Your task to perform on an android device: star an email in the gmail app Image 0: 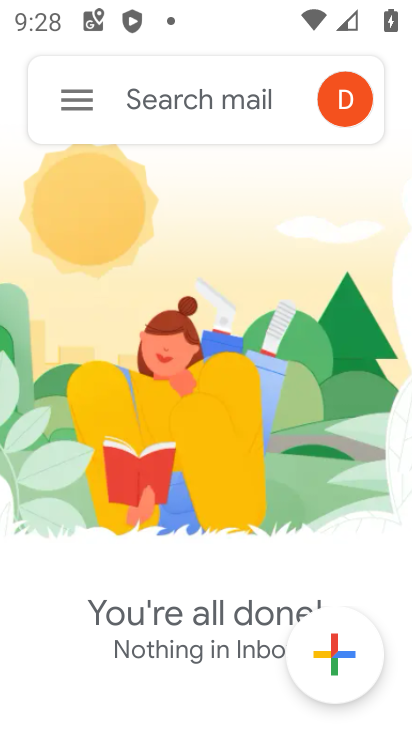
Step 0: press home button
Your task to perform on an android device: star an email in the gmail app Image 1: 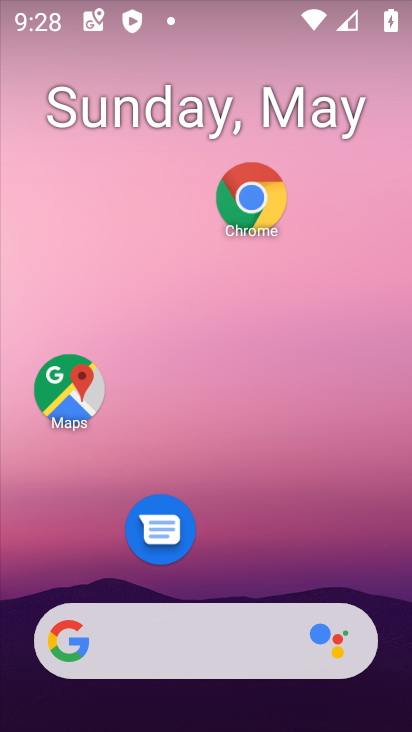
Step 1: drag from (235, 476) to (249, 51)
Your task to perform on an android device: star an email in the gmail app Image 2: 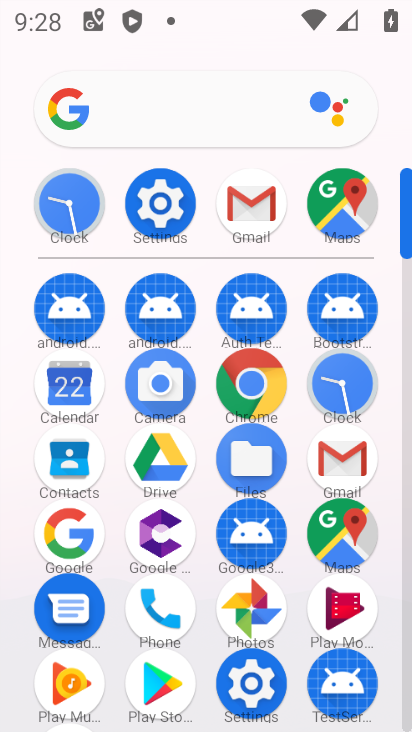
Step 2: click (252, 215)
Your task to perform on an android device: star an email in the gmail app Image 3: 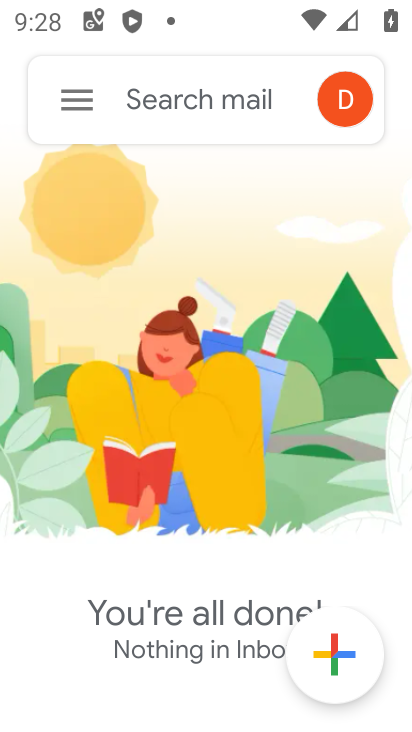
Step 3: click (88, 104)
Your task to perform on an android device: star an email in the gmail app Image 4: 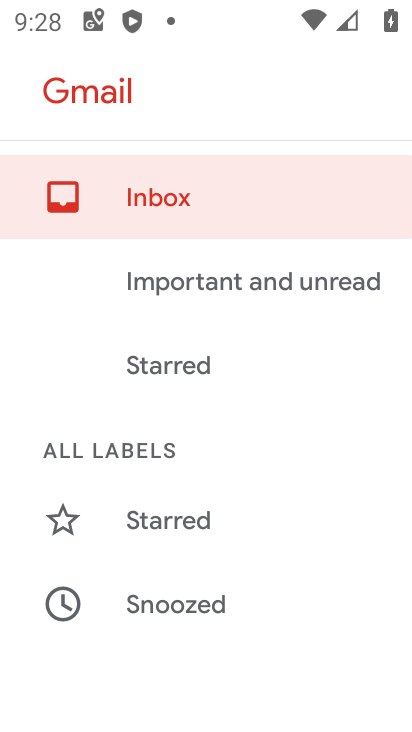
Step 4: drag from (245, 529) to (268, 242)
Your task to perform on an android device: star an email in the gmail app Image 5: 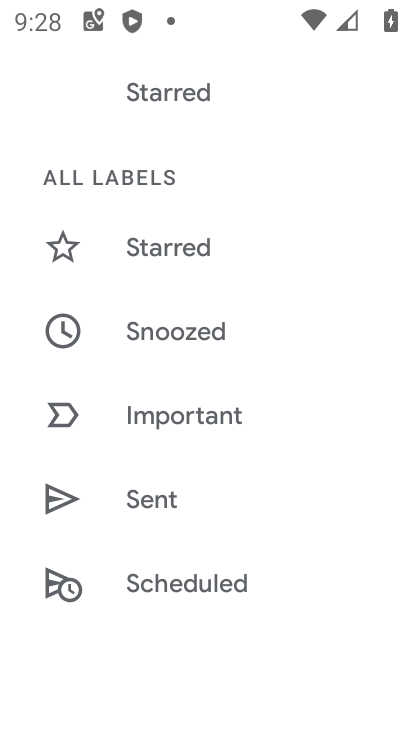
Step 5: drag from (212, 545) to (218, 327)
Your task to perform on an android device: star an email in the gmail app Image 6: 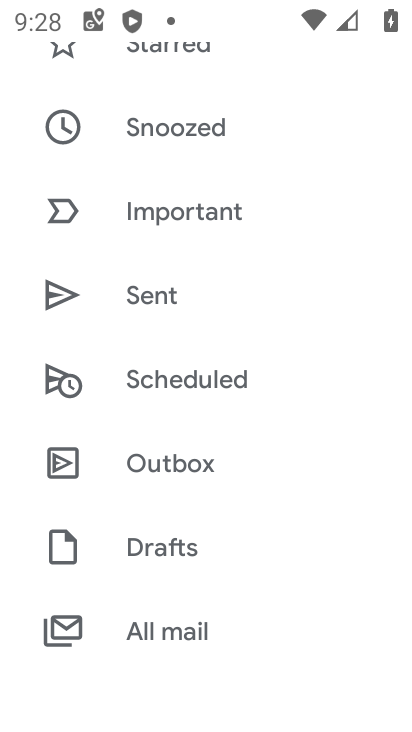
Step 6: click (162, 632)
Your task to perform on an android device: star an email in the gmail app Image 7: 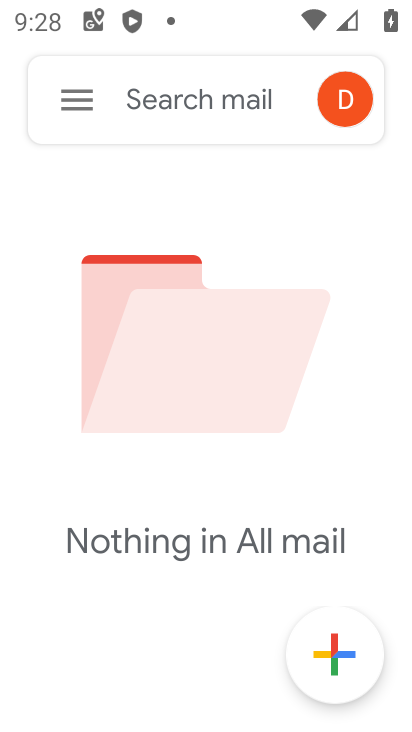
Step 7: task complete